Your task to perform on an android device: turn off airplane mode Image 0: 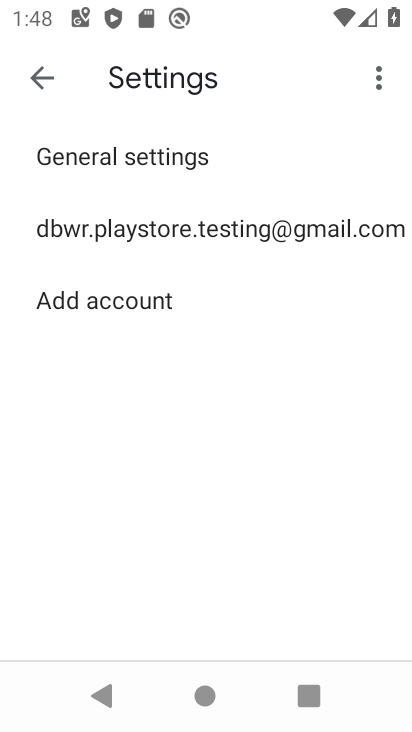
Step 0: press back button
Your task to perform on an android device: turn off airplane mode Image 1: 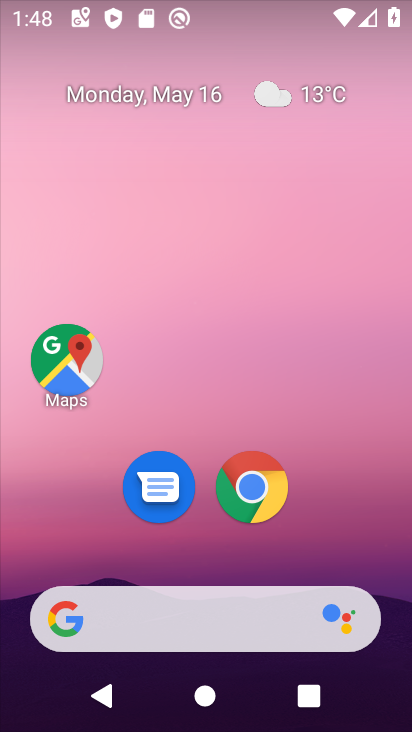
Step 1: click (61, 354)
Your task to perform on an android device: turn off airplane mode Image 2: 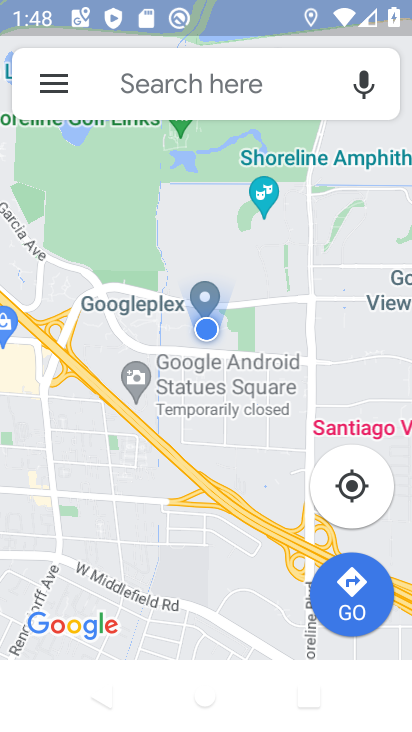
Step 2: click (268, 80)
Your task to perform on an android device: turn off airplane mode Image 3: 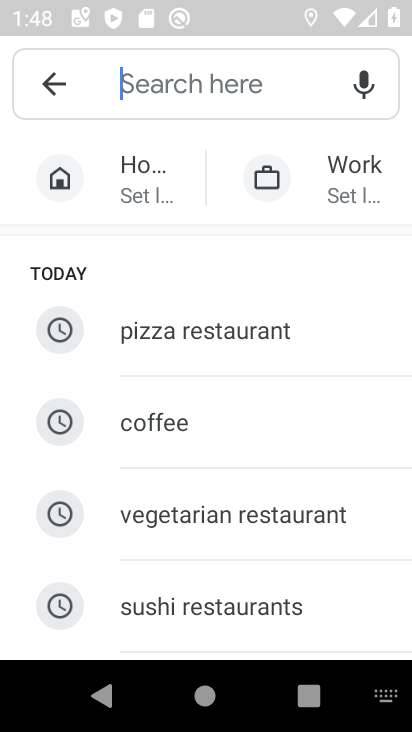
Step 3: press back button
Your task to perform on an android device: turn off airplane mode Image 4: 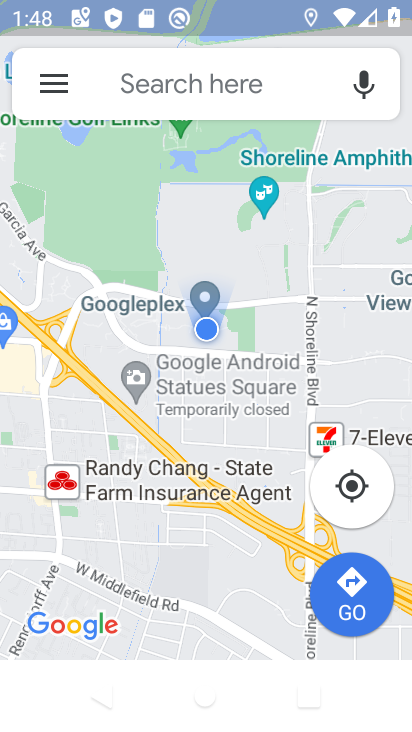
Step 4: press back button
Your task to perform on an android device: turn off airplane mode Image 5: 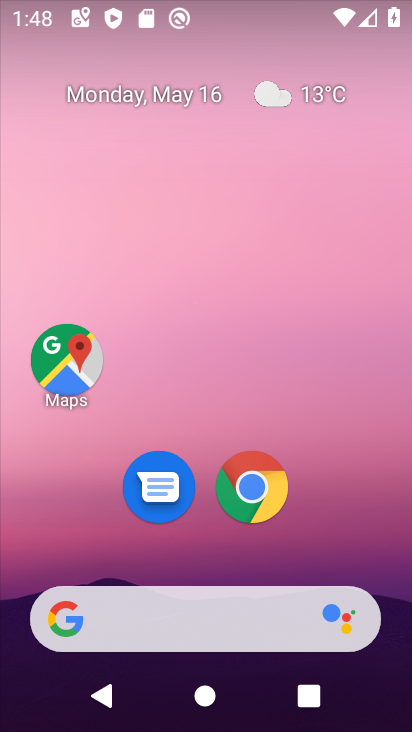
Step 5: drag from (317, 543) to (246, 42)
Your task to perform on an android device: turn off airplane mode Image 6: 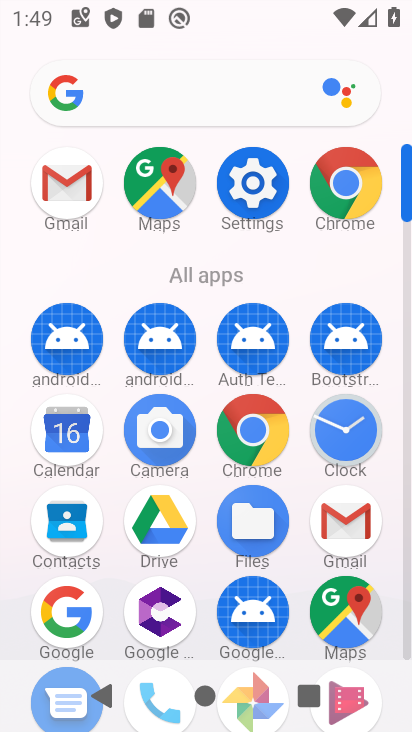
Step 6: click (251, 179)
Your task to perform on an android device: turn off airplane mode Image 7: 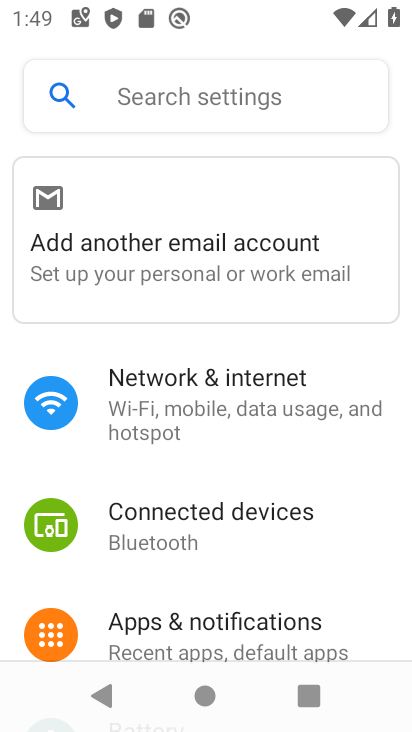
Step 7: drag from (339, 557) to (339, 246)
Your task to perform on an android device: turn off airplane mode Image 8: 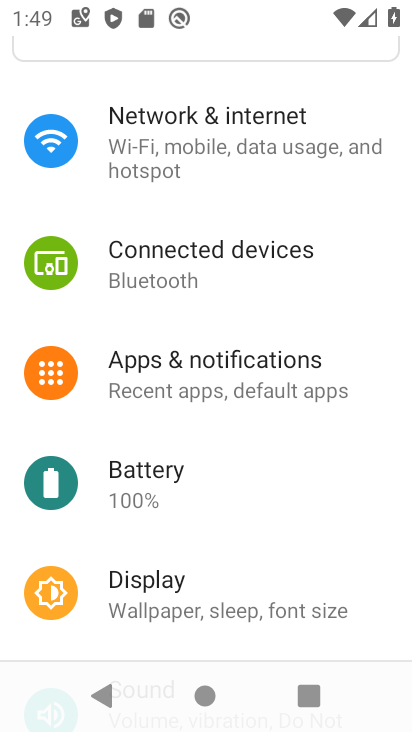
Step 8: click (203, 138)
Your task to perform on an android device: turn off airplane mode Image 9: 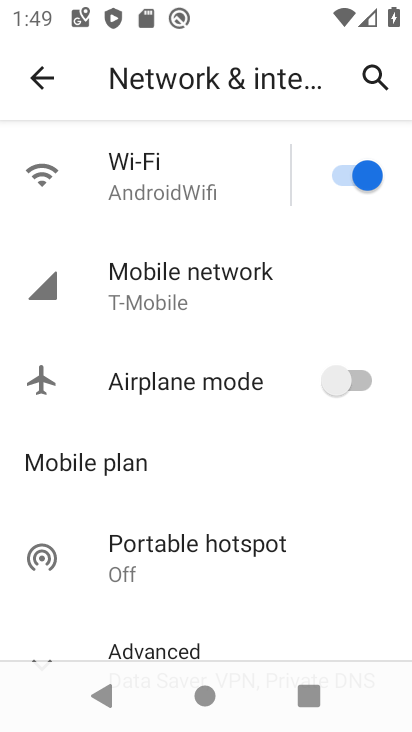
Step 9: task complete